Your task to perform on an android device: choose inbox layout in the gmail app Image 0: 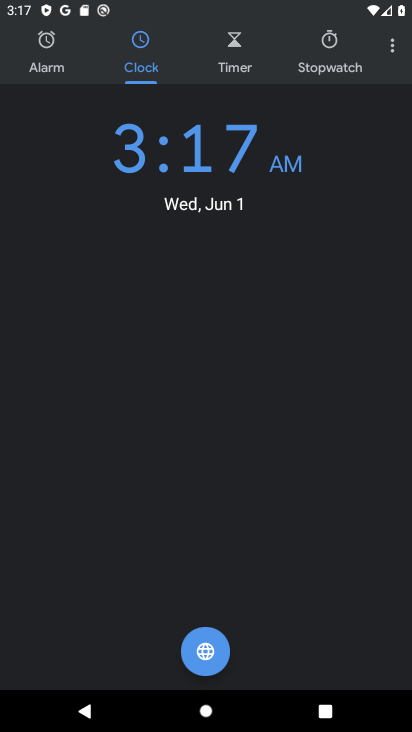
Step 0: press home button
Your task to perform on an android device: choose inbox layout in the gmail app Image 1: 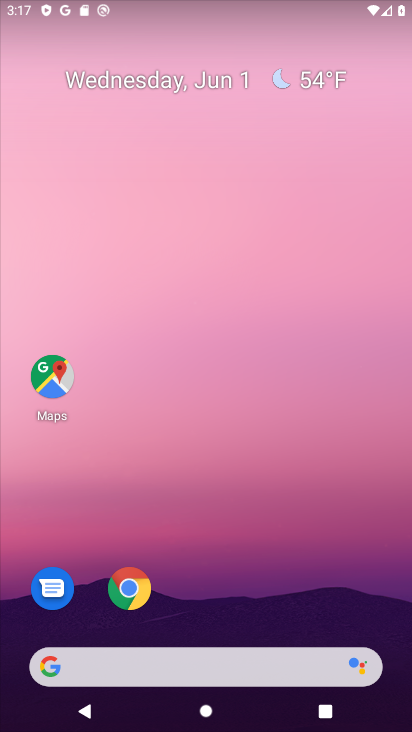
Step 1: drag from (197, 595) to (280, 6)
Your task to perform on an android device: choose inbox layout in the gmail app Image 2: 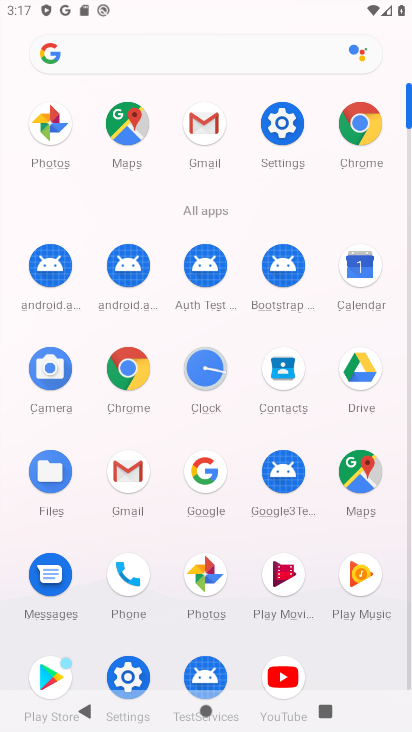
Step 2: click (125, 475)
Your task to perform on an android device: choose inbox layout in the gmail app Image 3: 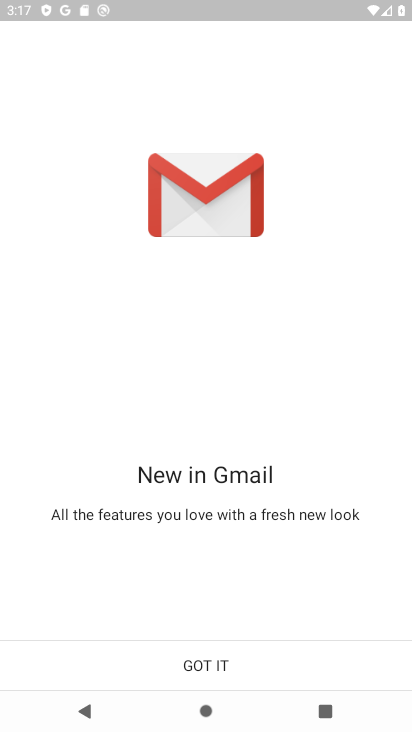
Step 3: click (239, 664)
Your task to perform on an android device: choose inbox layout in the gmail app Image 4: 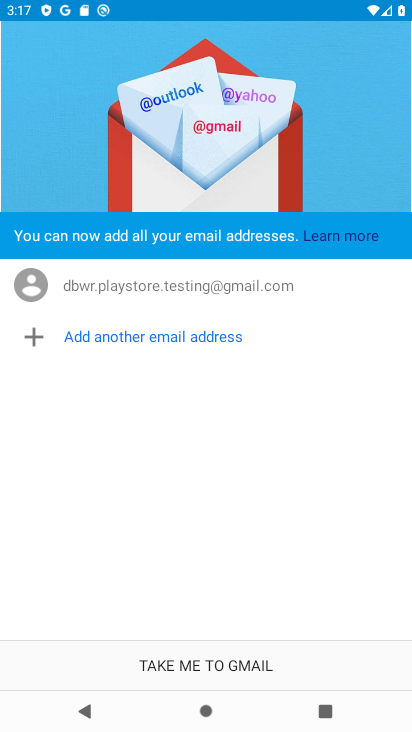
Step 4: click (239, 664)
Your task to perform on an android device: choose inbox layout in the gmail app Image 5: 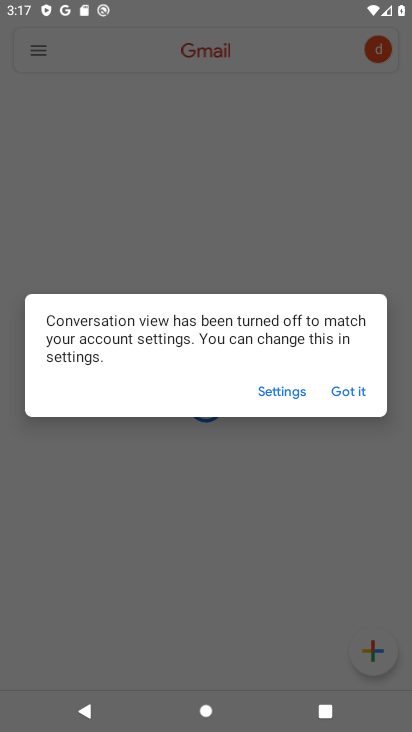
Step 5: click (270, 396)
Your task to perform on an android device: choose inbox layout in the gmail app Image 6: 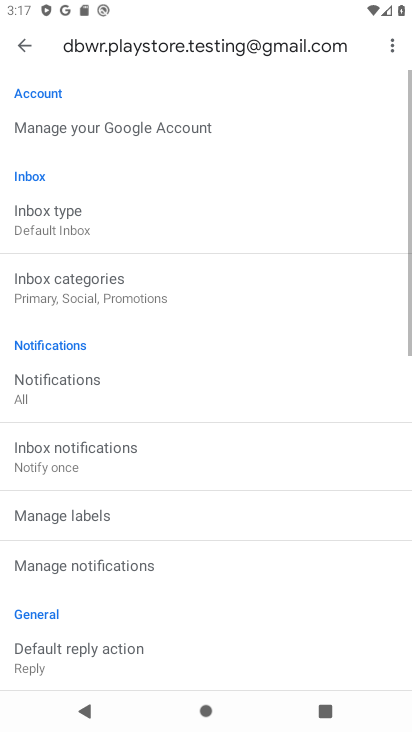
Step 6: click (101, 228)
Your task to perform on an android device: choose inbox layout in the gmail app Image 7: 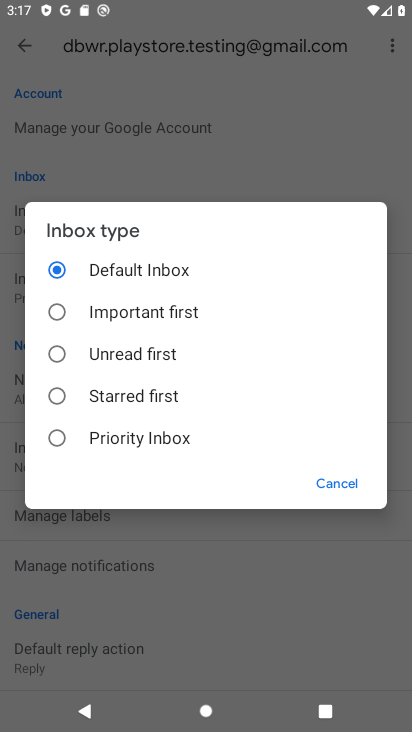
Step 7: click (151, 310)
Your task to perform on an android device: choose inbox layout in the gmail app Image 8: 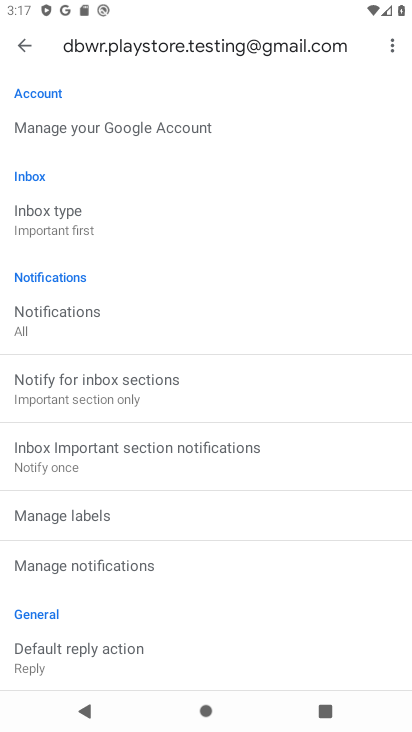
Step 8: task complete